Your task to perform on an android device: delete the emails in spam in the gmail app Image 0: 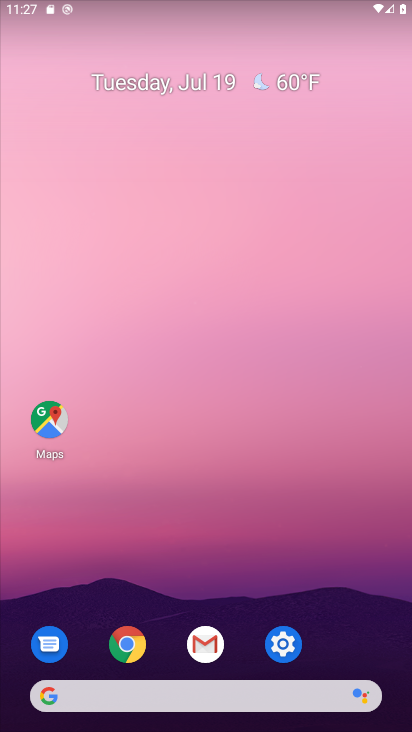
Step 0: click (211, 641)
Your task to perform on an android device: delete the emails in spam in the gmail app Image 1: 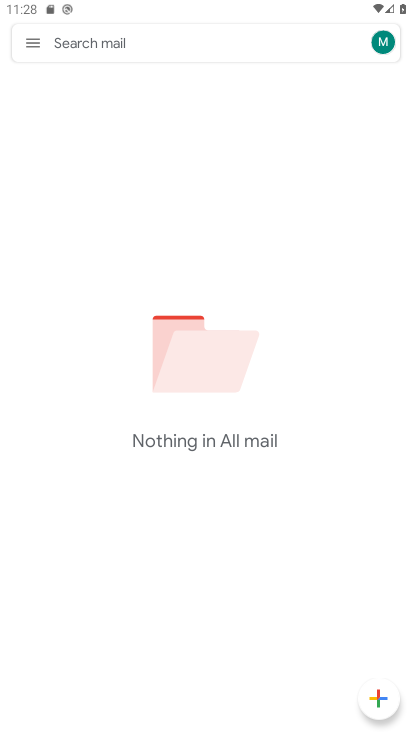
Step 1: click (40, 50)
Your task to perform on an android device: delete the emails in spam in the gmail app Image 2: 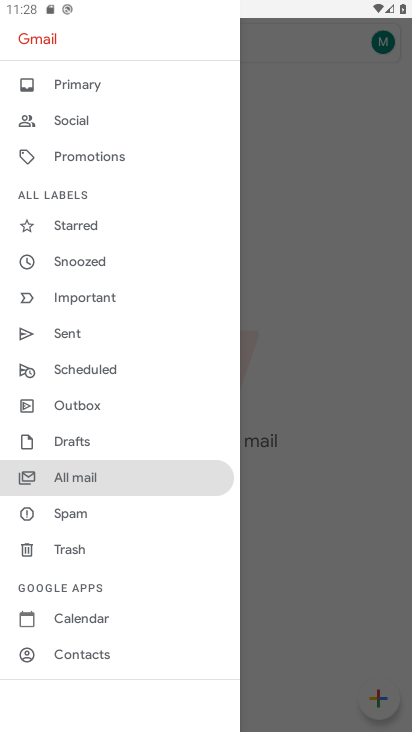
Step 2: click (89, 515)
Your task to perform on an android device: delete the emails in spam in the gmail app Image 3: 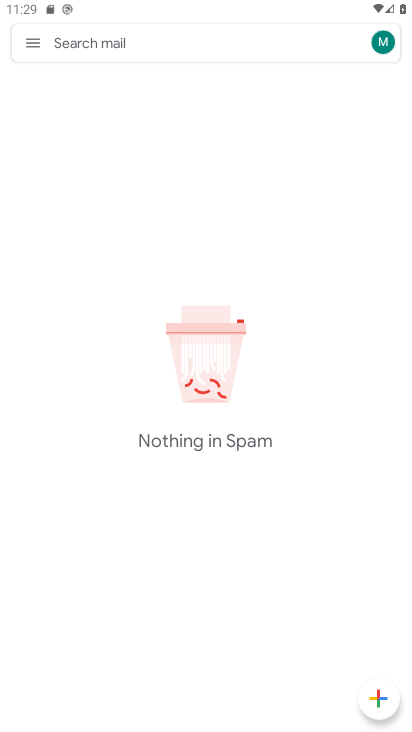
Step 3: task complete